Your task to perform on an android device: Open the map Image 0: 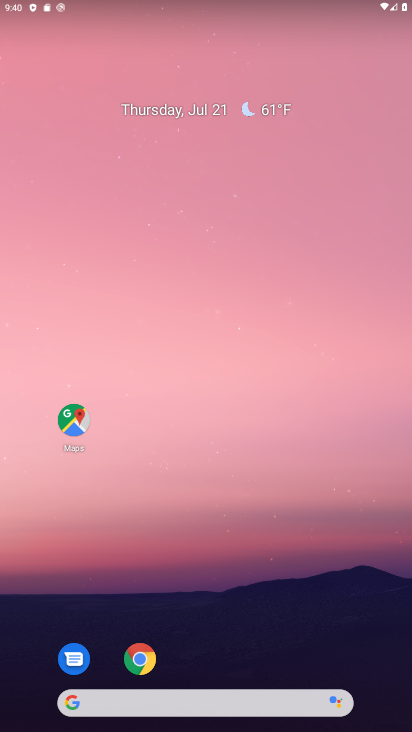
Step 0: click (82, 427)
Your task to perform on an android device: Open the map Image 1: 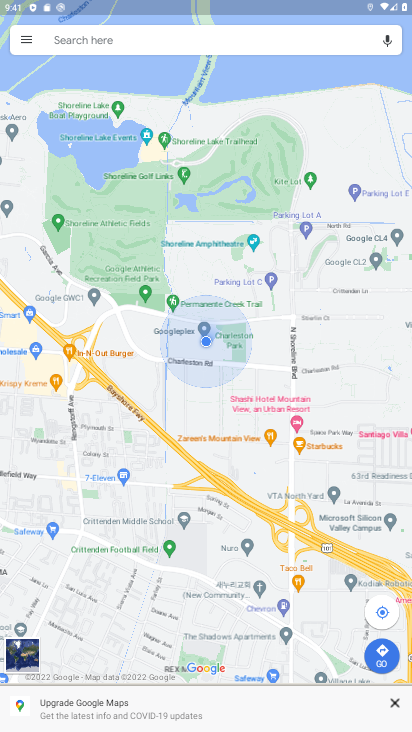
Step 1: task complete